Your task to perform on an android device: open app "Mercado Libre" (install if not already installed) and go to login screen Image 0: 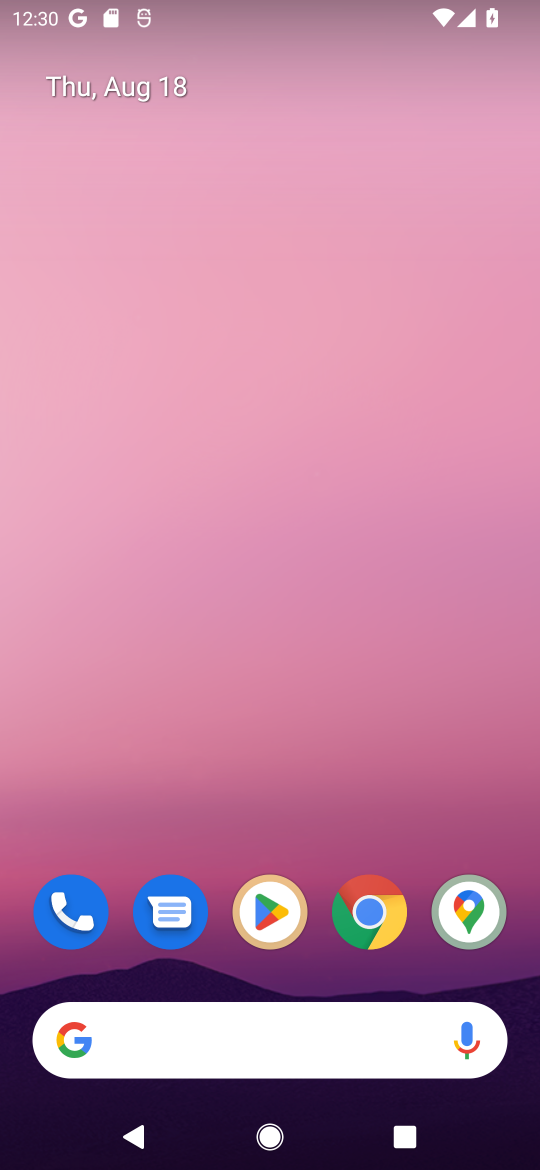
Step 0: click (274, 922)
Your task to perform on an android device: open app "Mercado Libre" (install if not already installed) and go to login screen Image 1: 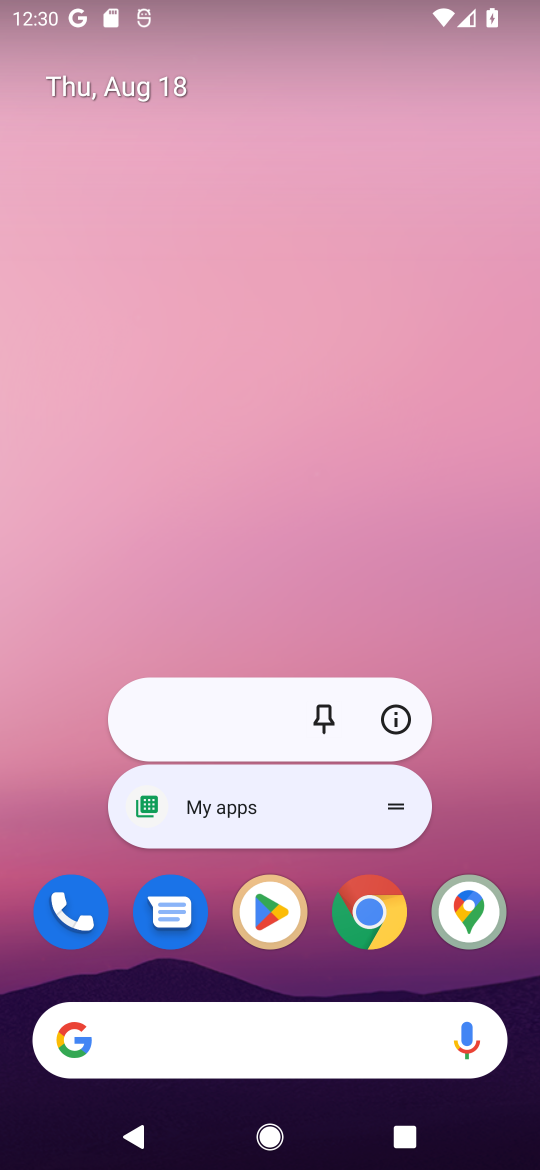
Step 1: click (265, 911)
Your task to perform on an android device: open app "Mercado Libre" (install if not already installed) and go to login screen Image 2: 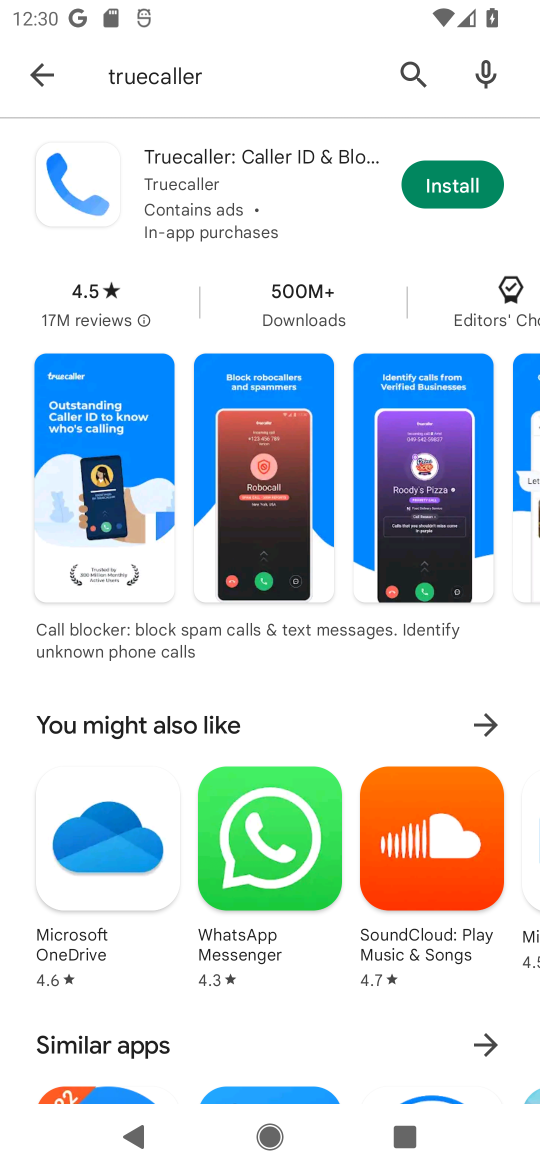
Step 2: click (428, 55)
Your task to perform on an android device: open app "Mercado Libre" (install if not already installed) and go to login screen Image 3: 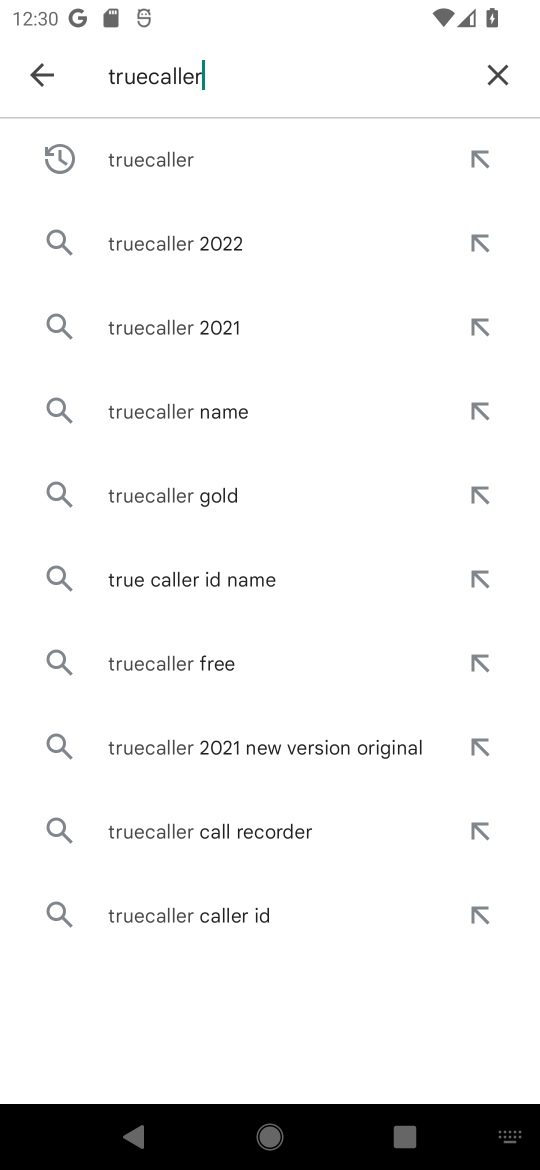
Step 3: click (488, 67)
Your task to perform on an android device: open app "Mercado Libre" (install if not already installed) and go to login screen Image 4: 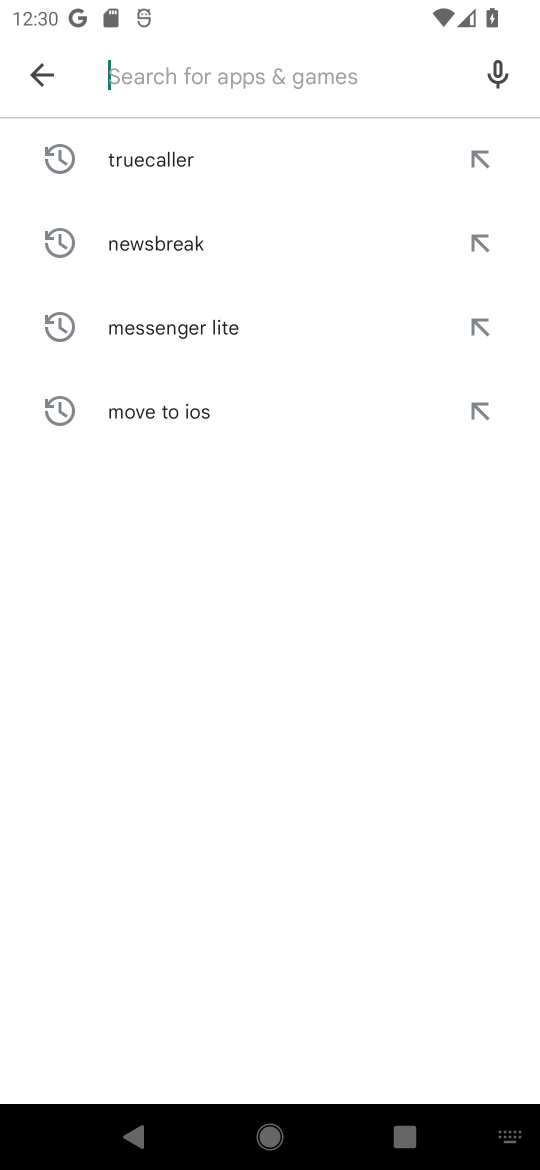
Step 4: click (117, 81)
Your task to perform on an android device: open app "Mercado Libre" (install if not already installed) and go to login screen Image 5: 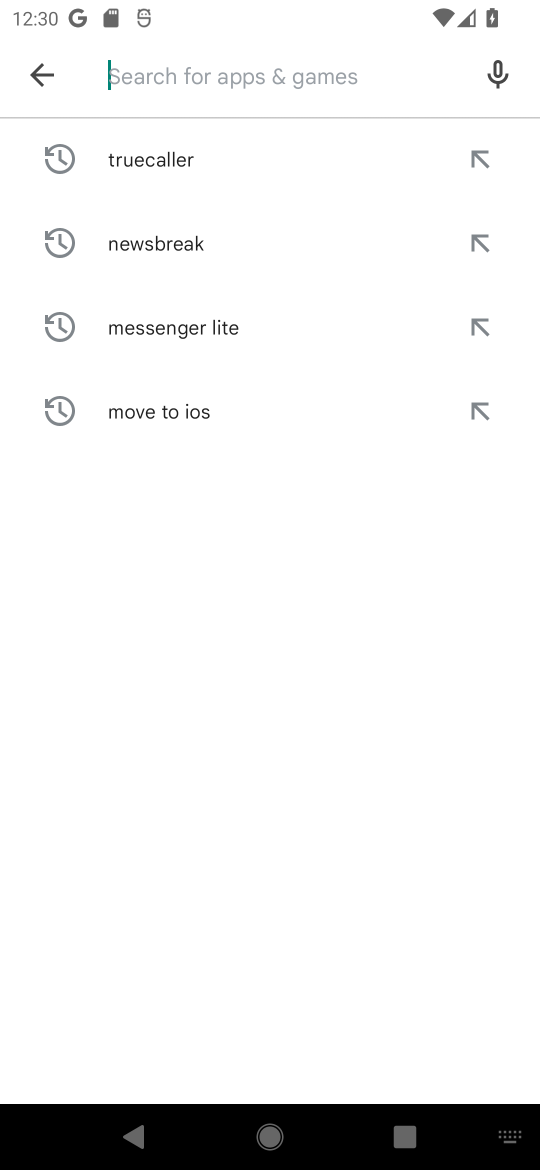
Step 5: click (324, 689)
Your task to perform on an android device: open app "Mercado Libre" (install if not already installed) and go to login screen Image 6: 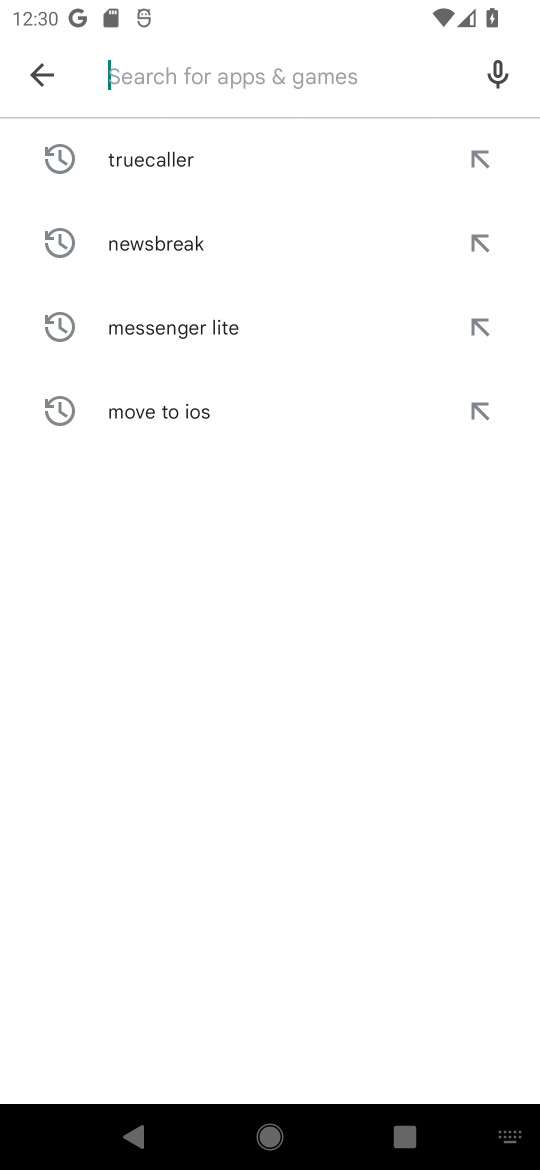
Step 6: type "Mercado Libre"
Your task to perform on an android device: open app "Mercado Libre" (install if not already installed) and go to login screen Image 7: 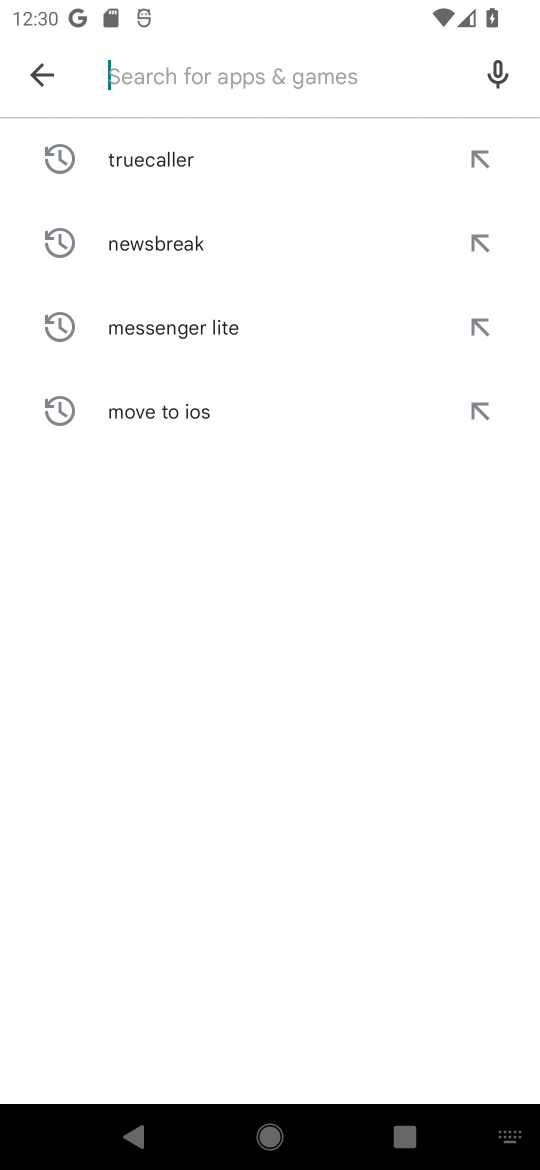
Step 7: click (324, 689)
Your task to perform on an android device: open app "Mercado Libre" (install if not already installed) and go to login screen Image 8: 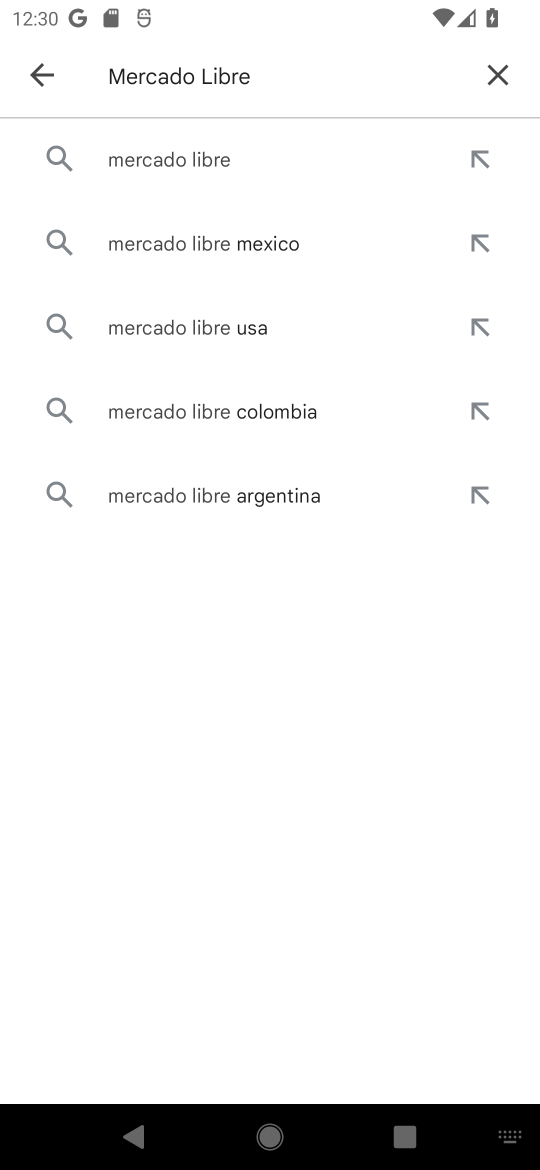
Step 8: click (209, 162)
Your task to perform on an android device: open app "Mercado Libre" (install if not already installed) and go to login screen Image 9: 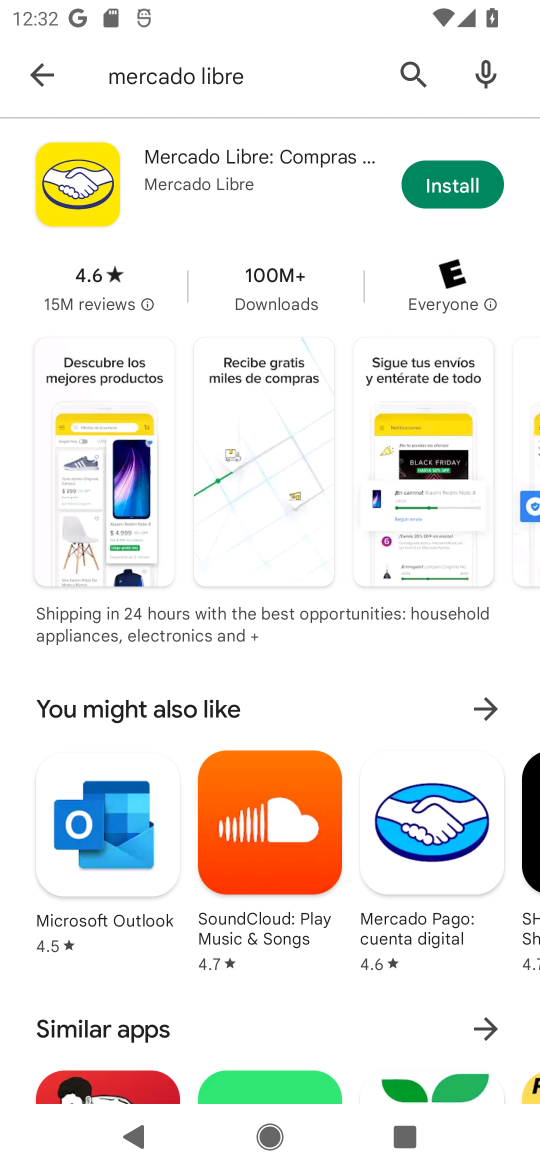
Step 9: click (435, 185)
Your task to perform on an android device: open app "Mercado Libre" (install if not already installed) and go to login screen Image 10: 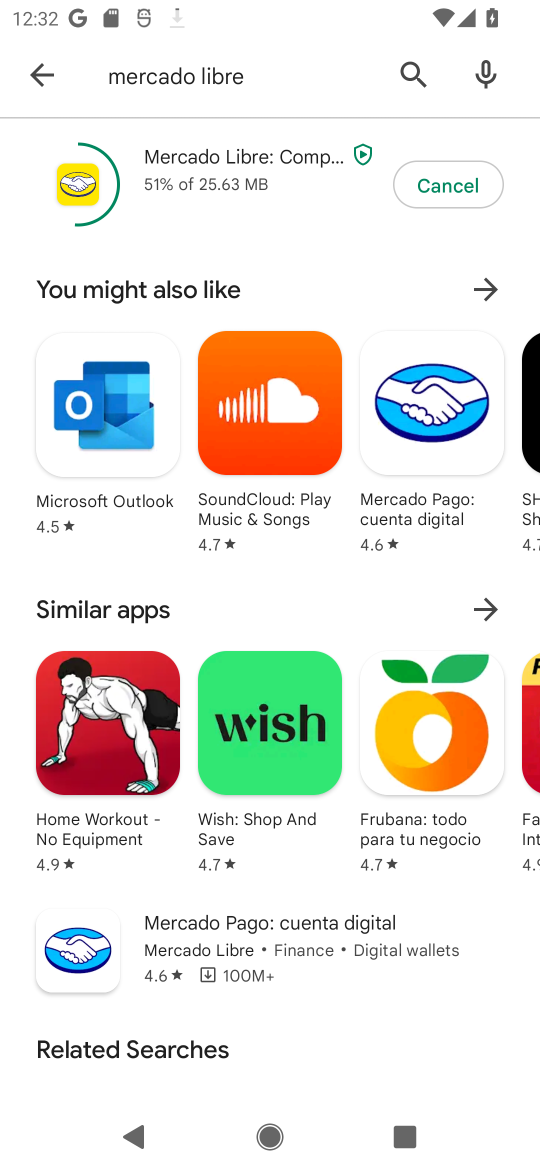
Step 10: click (12, 1149)
Your task to perform on an android device: open app "Mercado Libre" (install if not already installed) and go to login screen Image 11: 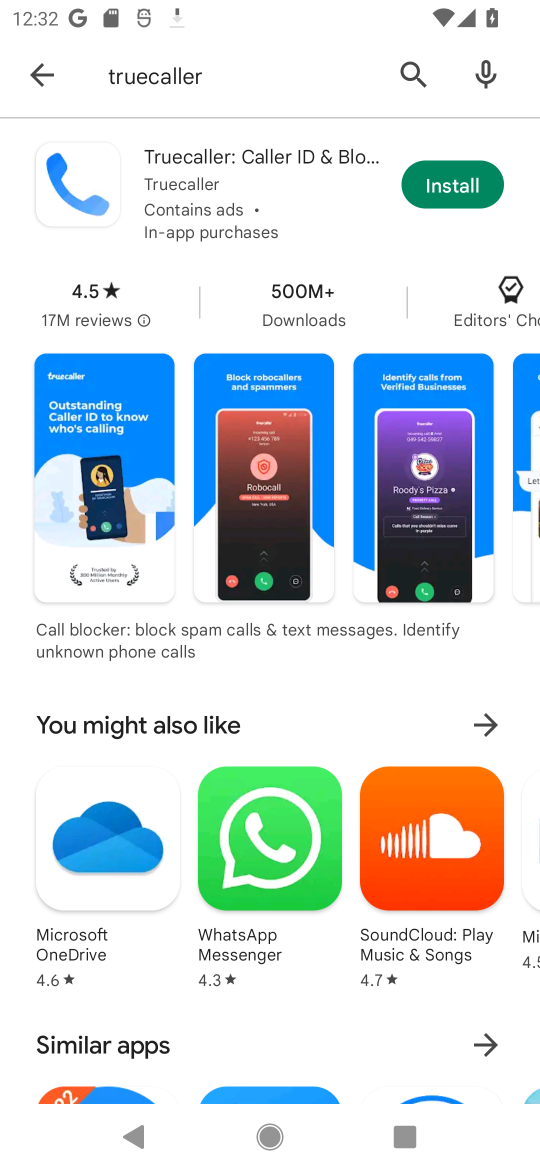
Step 11: click (430, 69)
Your task to perform on an android device: open app "Mercado Libre" (install if not already installed) and go to login screen Image 12: 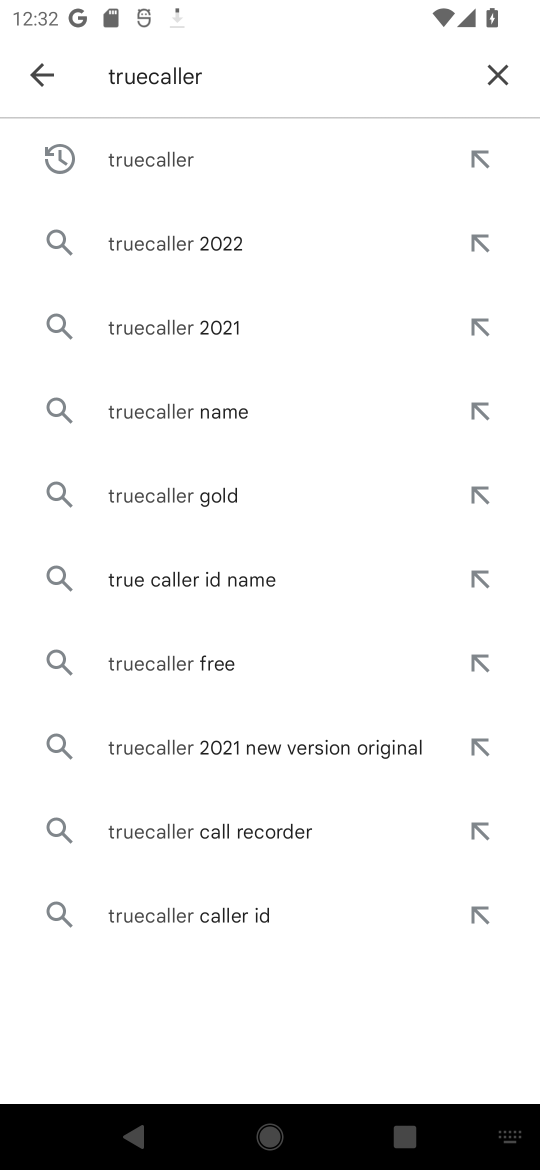
Step 12: click (486, 82)
Your task to perform on an android device: open app "Mercado Libre" (install if not already installed) and go to login screen Image 13: 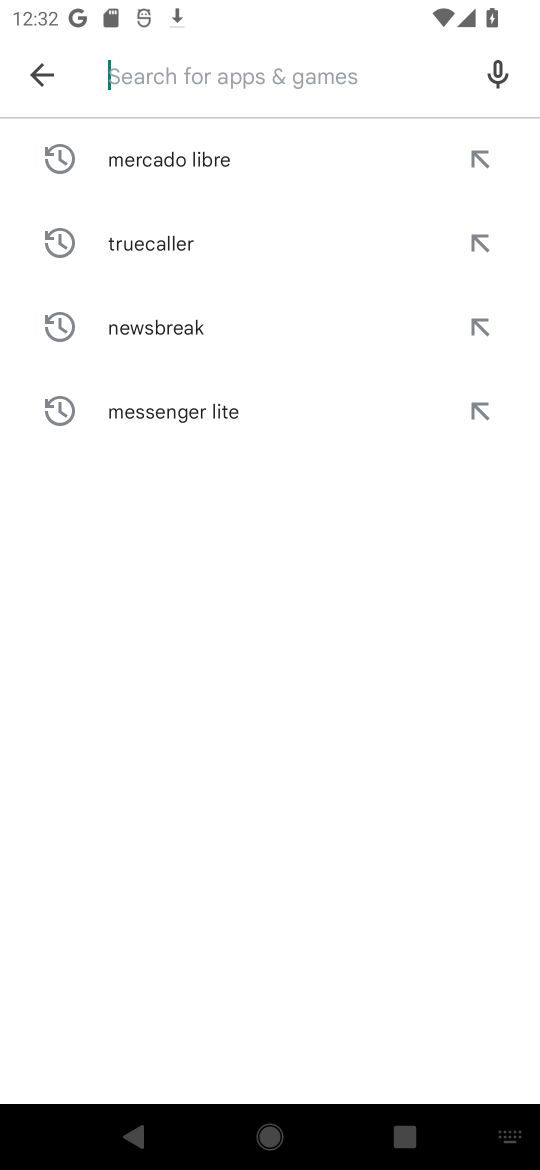
Step 13: click (162, 146)
Your task to perform on an android device: open app "Mercado Libre" (install if not already installed) and go to login screen Image 14: 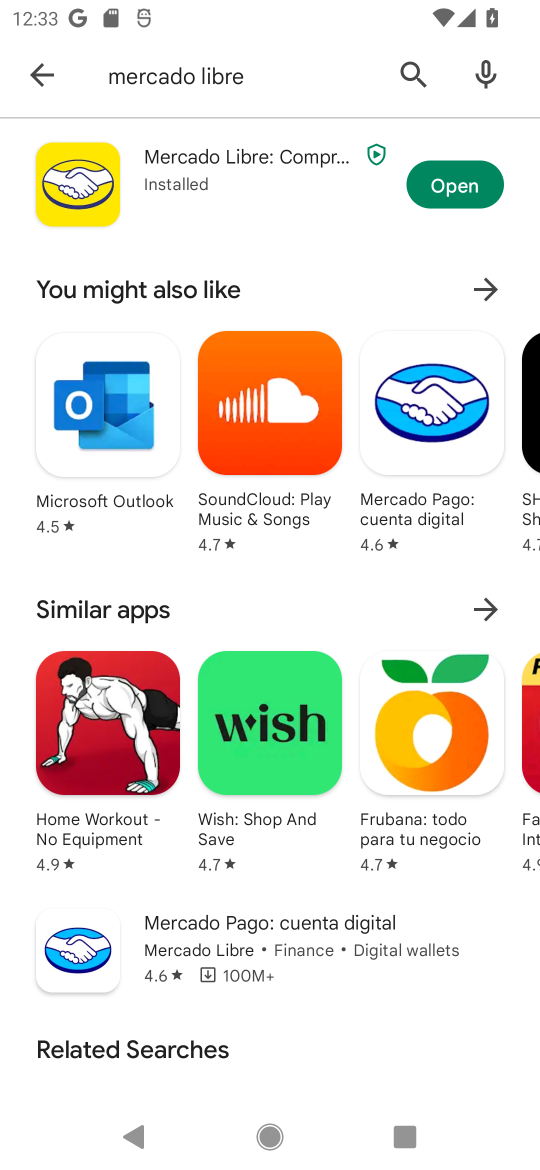
Step 14: click (460, 181)
Your task to perform on an android device: open app "Mercado Libre" (install if not already installed) and go to login screen Image 15: 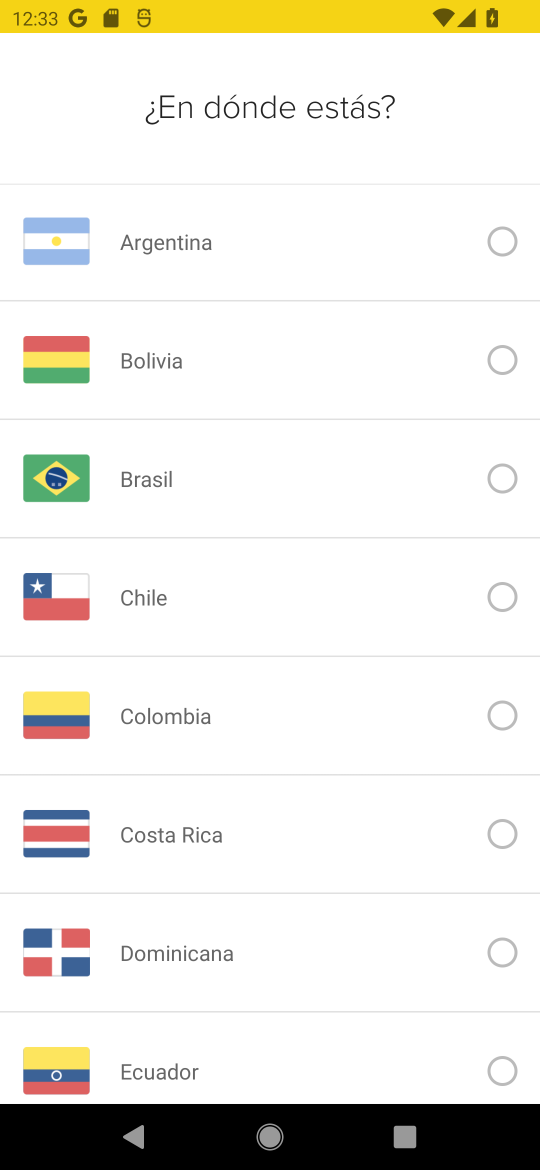
Step 15: click (460, 244)
Your task to perform on an android device: open app "Mercado Libre" (install if not already installed) and go to login screen Image 16: 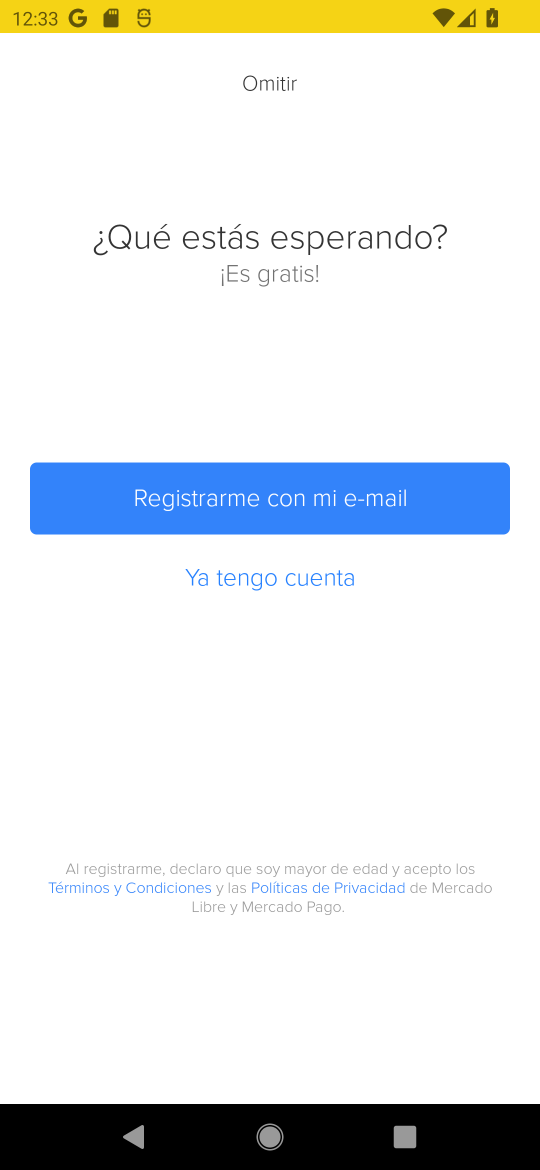
Step 16: task complete